Your task to perform on an android device: Go to Wikipedia Image 0: 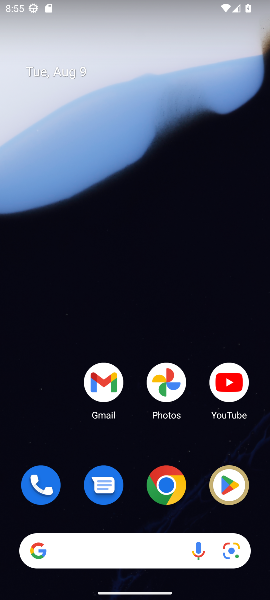
Step 0: click (178, 499)
Your task to perform on an android device: Go to Wikipedia Image 1: 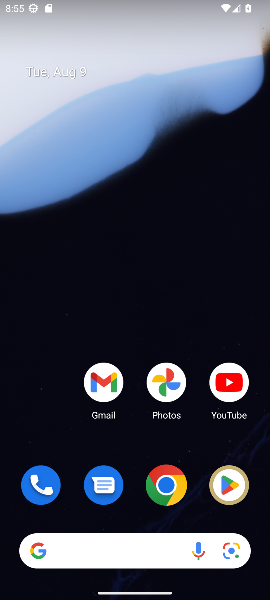
Step 1: click (178, 499)
Your task to perform on an android device: Go to Wikipedia Image 2: 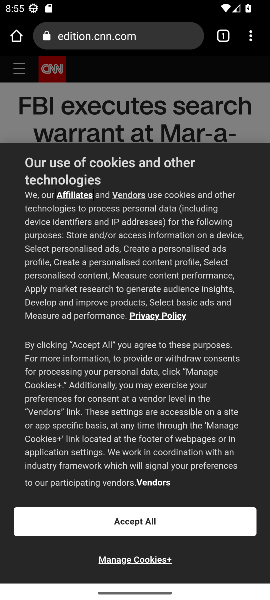
Step 2: click (226, 41)
Your task to perform on an android device: Go to Wikipedia Image 3: 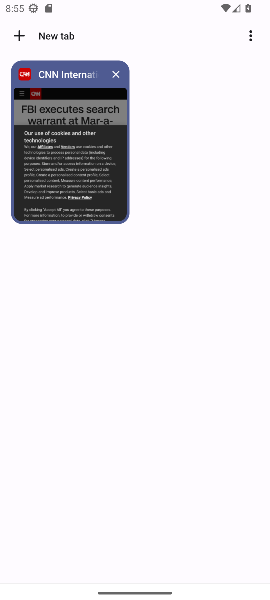
Step 3: click (115, 72)
Your task to perform on an android device: Go to Wikipedia Image 4: 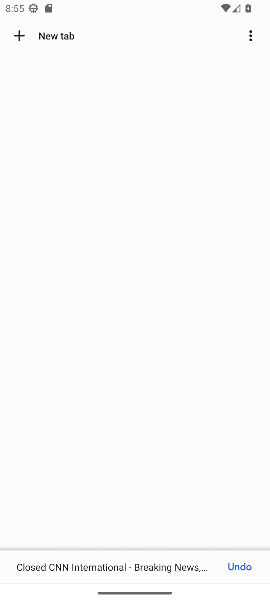
Step 4: click (15, 33)
Your task to perform on an android device: Go to Wikipedia Image 5: 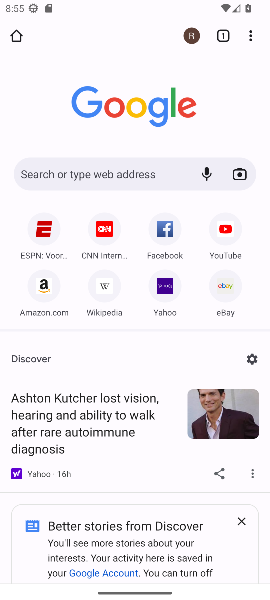
Step 5: click (106, 293)
Your task to perform on an android device: Go to Wikipedia Image 6: 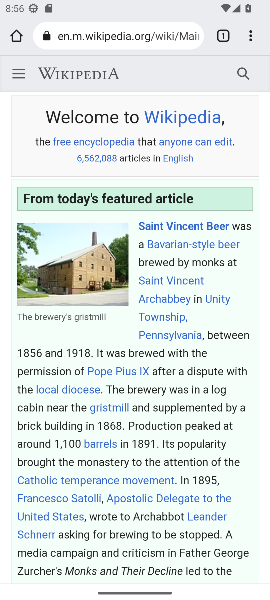
Step 6: task complete